Your task to perform on an android device: Search for good Italian restaurants on Maps Image 0: 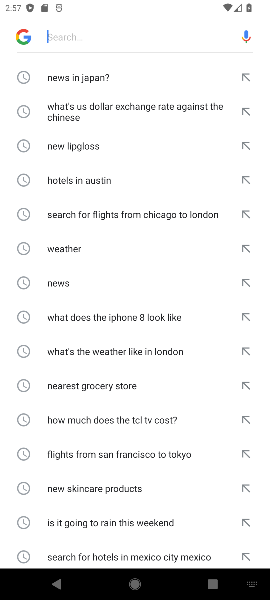
Step 0: press home button
Your task to perform on an android device: Search for good Italian restaurants on Maps Image 1: 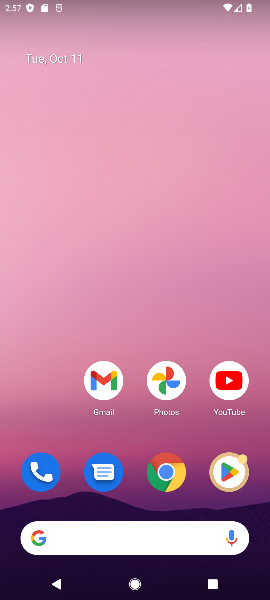
Step 1: drag from (141, 430) to (137, 31)
Your task to perform on an android device: Search for good Italian restaurants on Maps Image 2: 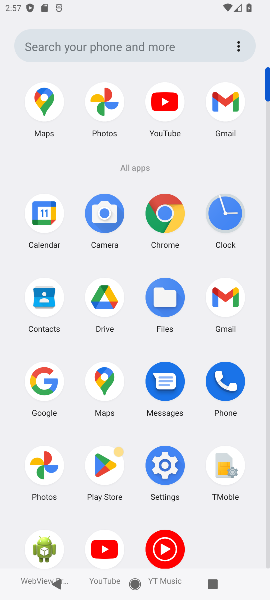
Step 2: click (115, 384)
Your task to perform on an android device: Search for good Italian restaurants on Maps Image 3: 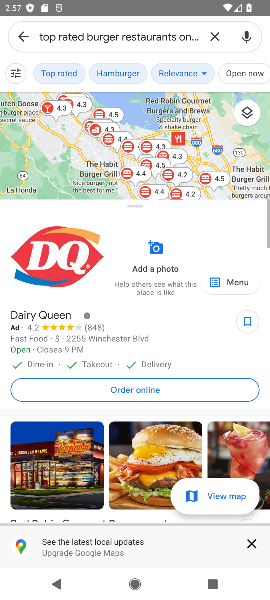
Step 3: click (212, 34)
Your task to perform on an android device: Search for good Italian restaurants on Maps Image 4: 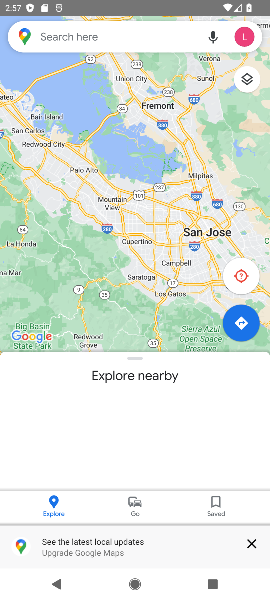
Step 4: click (162, 39)
Your task to perform on an android device: Search for good Italian restaurants on Maps Image 5: 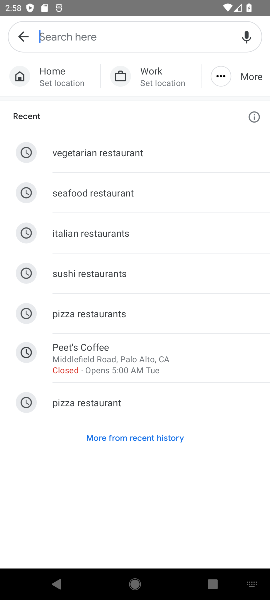
Step 5: type " good Italian restaurants "
Your task to perform on an android device: Search for good Italian restaurants on Maps Image 6: 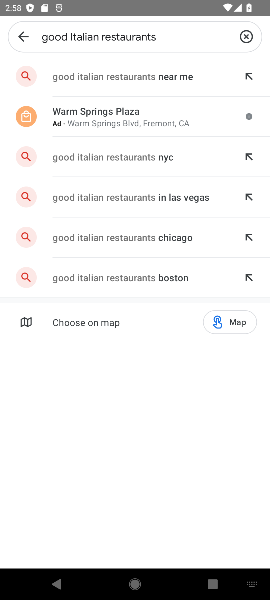
Step 6: click (94, 87)
Your task to perform on an android device: Search for good Italian restaurants on Maps Image 7: 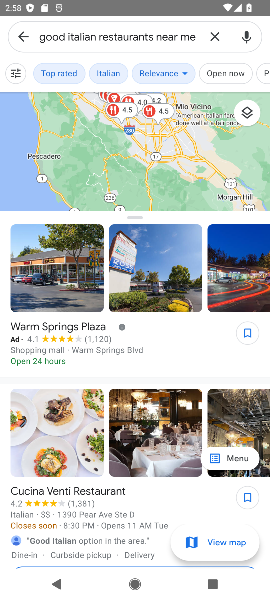
Step 7: task complete